Your task to perform on an android device: Go to CNN.com Image 0: 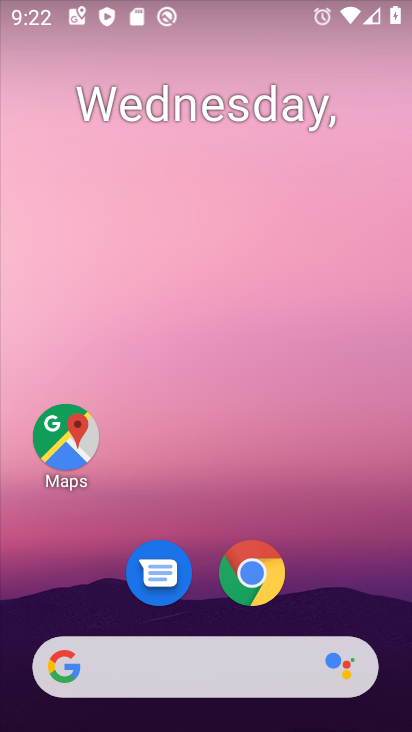
Step 0: drag from (294, 598) to (271, 124)
Your task to perform on an android device: Go to CNN.com Image 1: 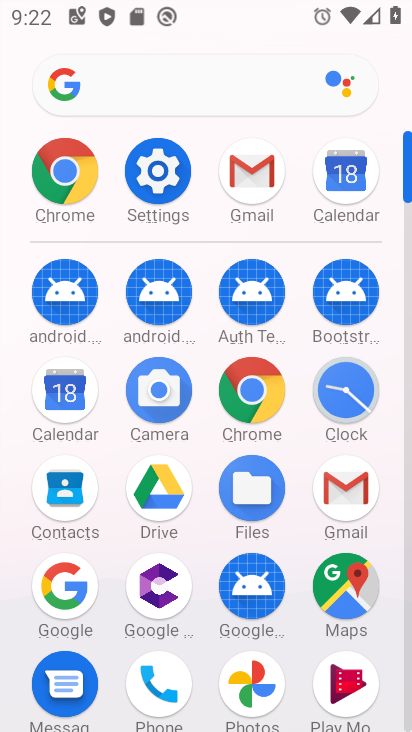
Step 1: click (83, 184)
Your task to perform on an android device: Go to CNN.com Image 2: 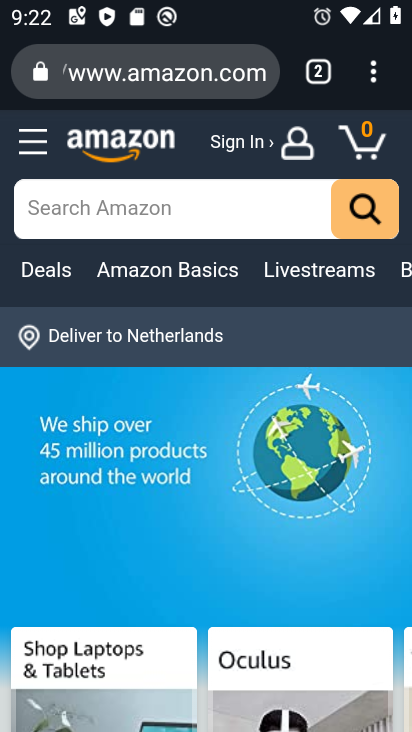
Step 2: click (231, 63)
Your task to perform on an android device: Go to CNN.com Image 3: 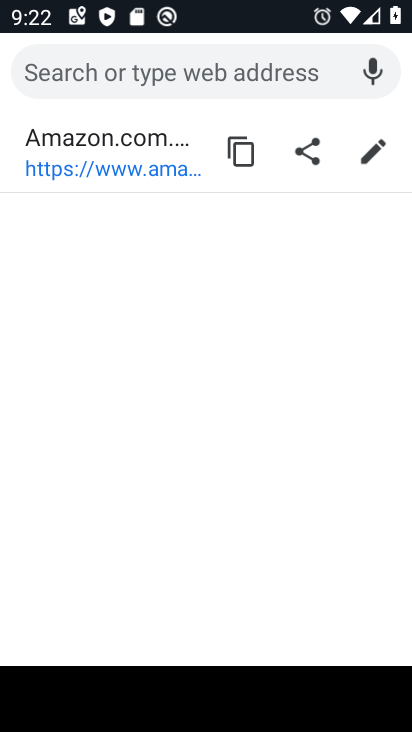
Step 3: type "cnn"
Your task to perform on an android device: Go to CNN.com Image 4: 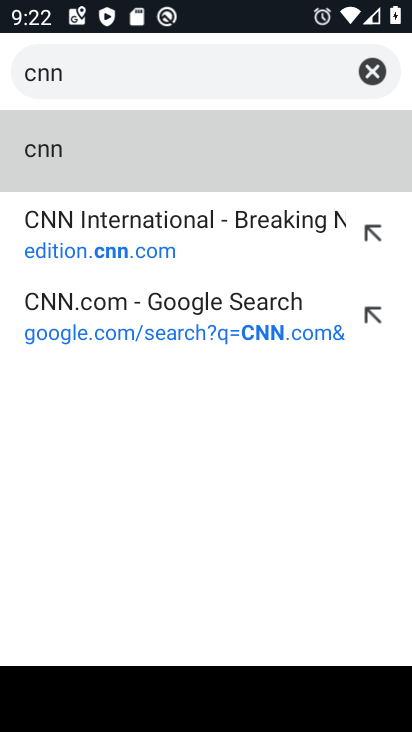
Step 4: click (232, 243)
Your task to perform on an android device: Go to CNN.com Image 5: 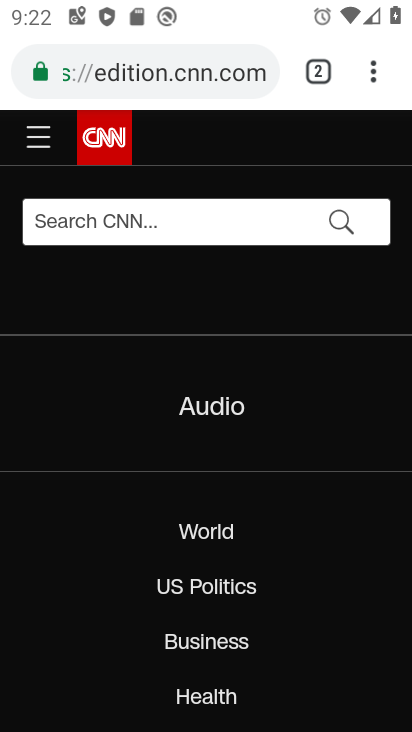
Step 5: task complete